Your task to perform on an android device: Open privacy settings Image 0: 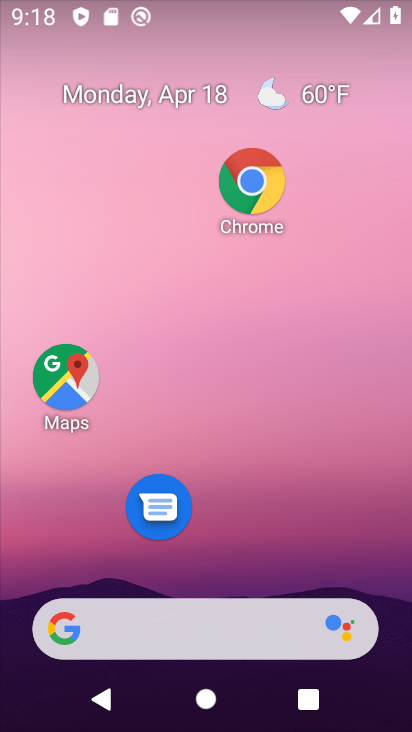
Step 0: drag from (249, 77) to (167, 31)
Your task to perform on an android device: Open privacy settings Image 1: 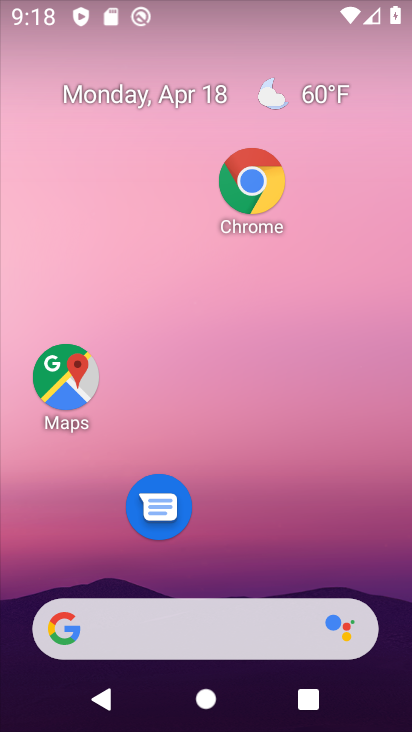
Step 1: drag from (178, 633) to (173, 141)
Your task to perform on an android device: Open privacy settings Image 2: 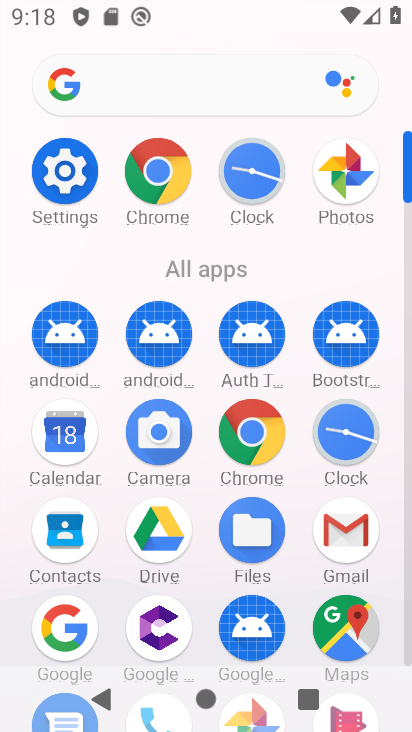
Step 2: click (58, 172)
Your task to perform on an android device: Open privacy settings Image 3: 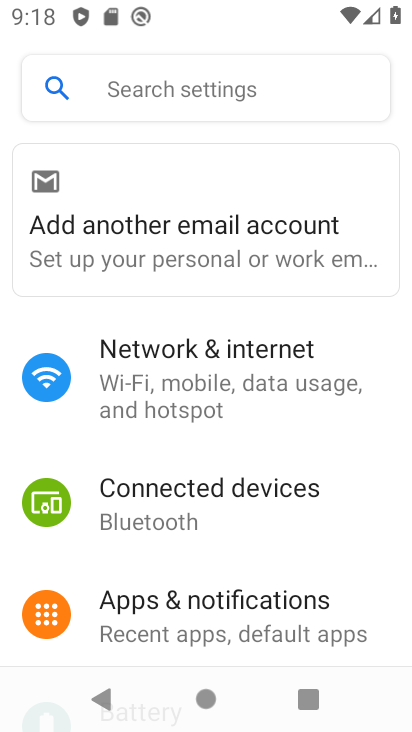
Step 3: drag from (191, 570) to (9, 250)
Your task to perform on an android device: Open privacy settings Image 4: 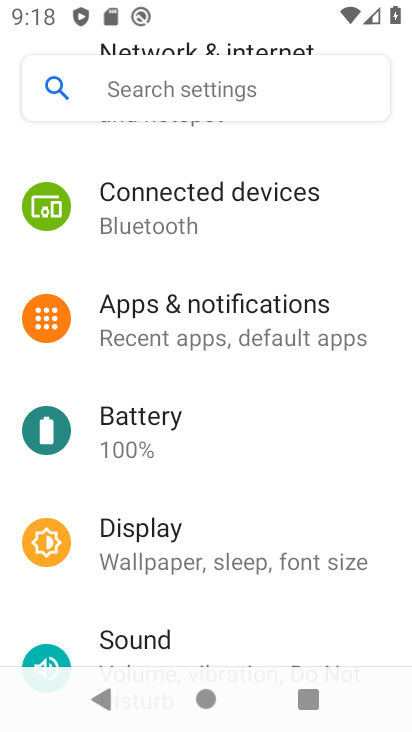
Step 4: drag from (184, 453) to (141, 120)
Your task to perform on an android device: Open privacy settings Image 5: 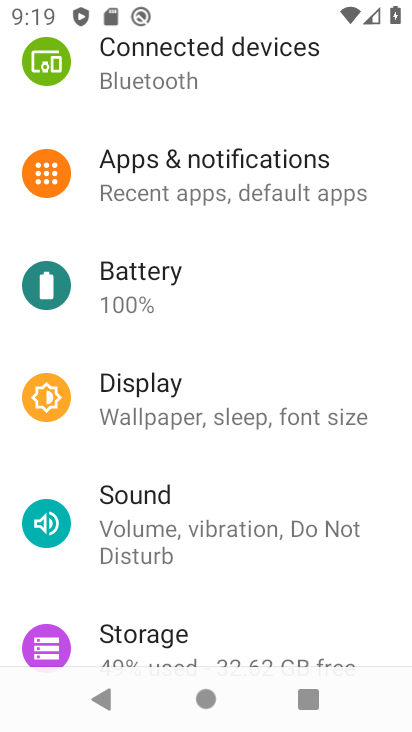
Step 5: drag from (228, 572) to (247, 103)
Your task to perform on an android device: Open privacy settings Image 6: 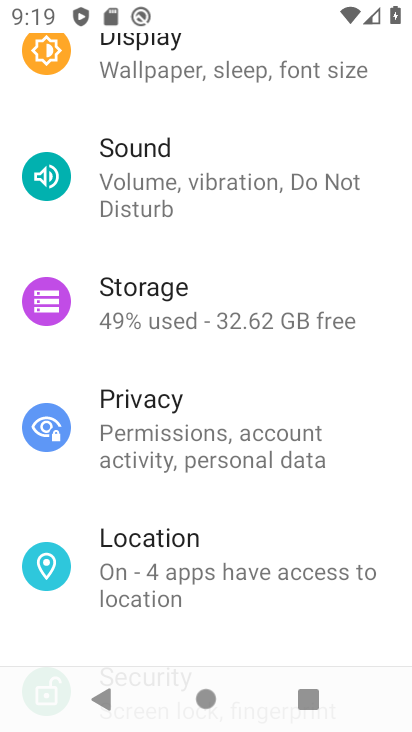
Step 6: click (163, 457)
Your task to perform on an android device: Open privacy settings Image 7: 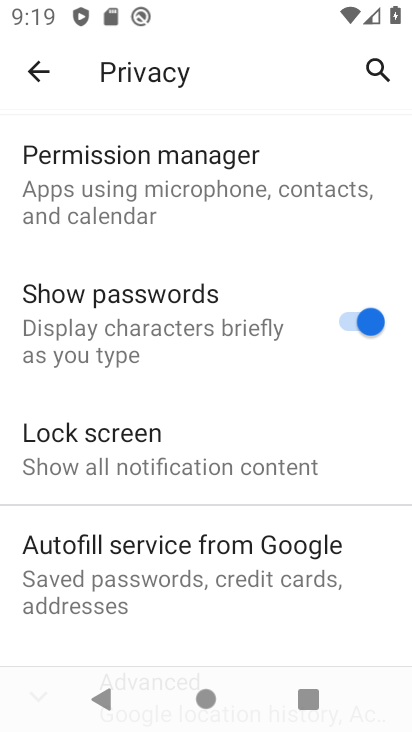
Step 7: task complete